Your task to perform on an android device: Do I have any events this weekend? Image 0: 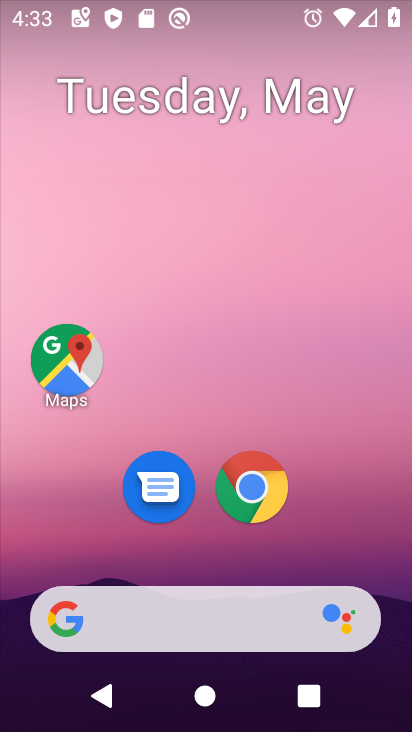
Step 0: drag from (362, 491) to (360, 91)
Your task to perform on an android device: Do I have any events this weekend? Image 1: 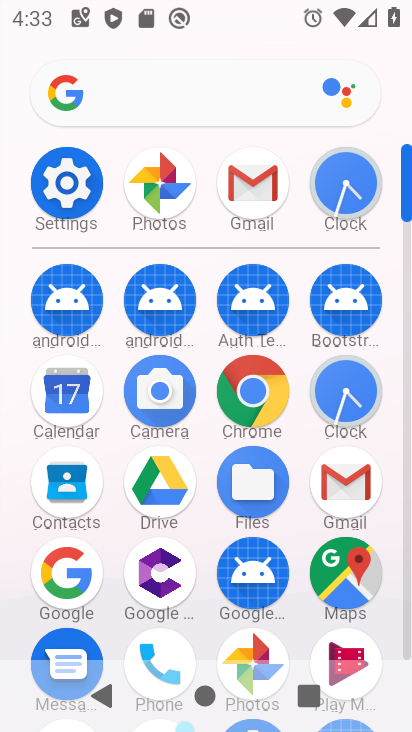
Step 1: click (75, 387)
Your task to perform on an android device: Do I have any events this weekend? Image 2: 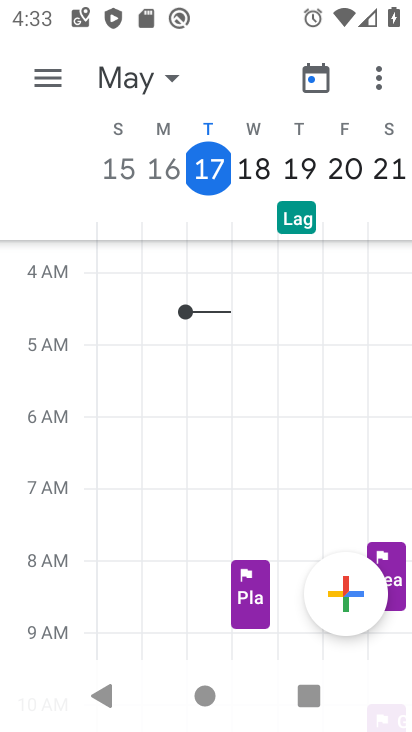
Step 2: task complete